Your task to perform on an android device: Search for usb-c to usb-b on newegg.com, select the first entry, add it to the cart, then select checkout. Image 0: 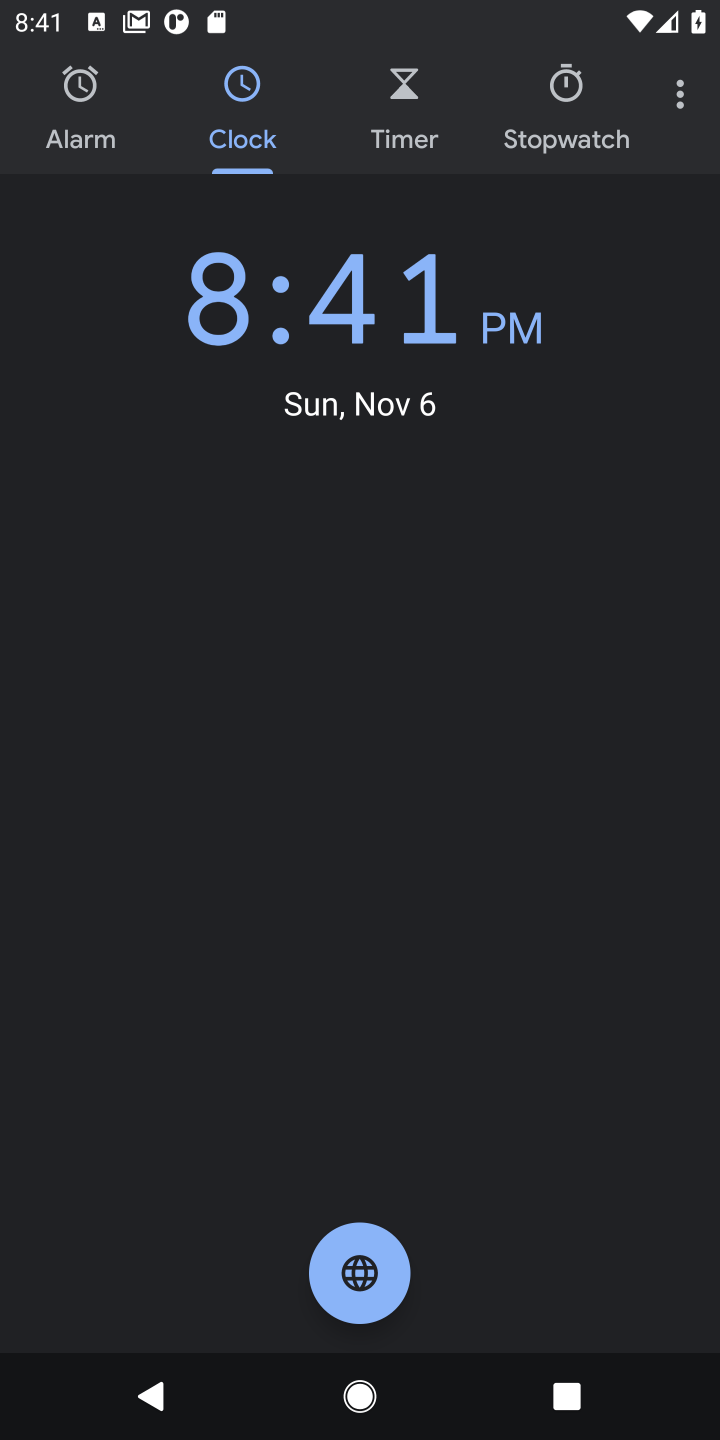
Step 0: press home button
Your task to perform on an android device: Search for usb-c to usb-b on newegg.com, select the first entry, add it to the cart, then select checkout. Image 1: 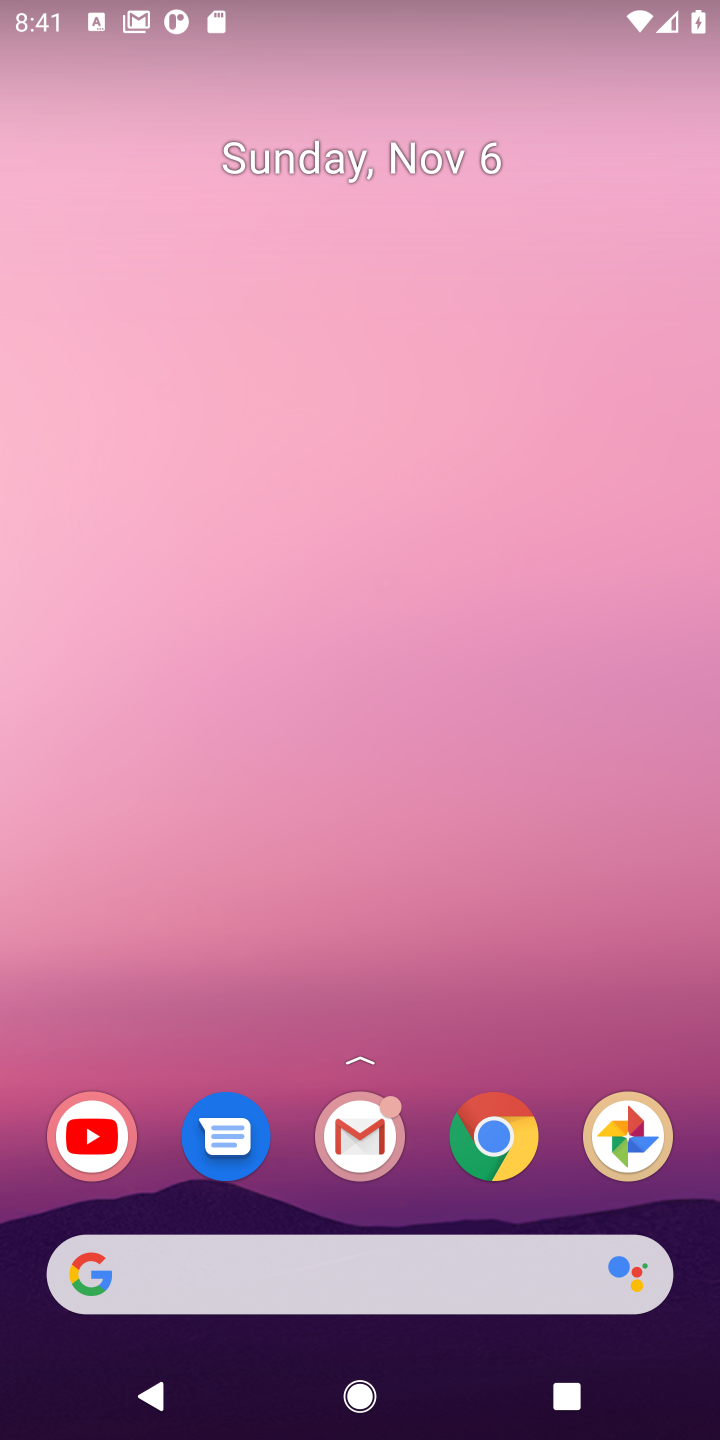
Step 1: click (178, 1274)
Your task to perform on an android device: Search for usb-c to usb-b on newegg.com, select the first entry, add it to the cart, then select checkout. Image 2: 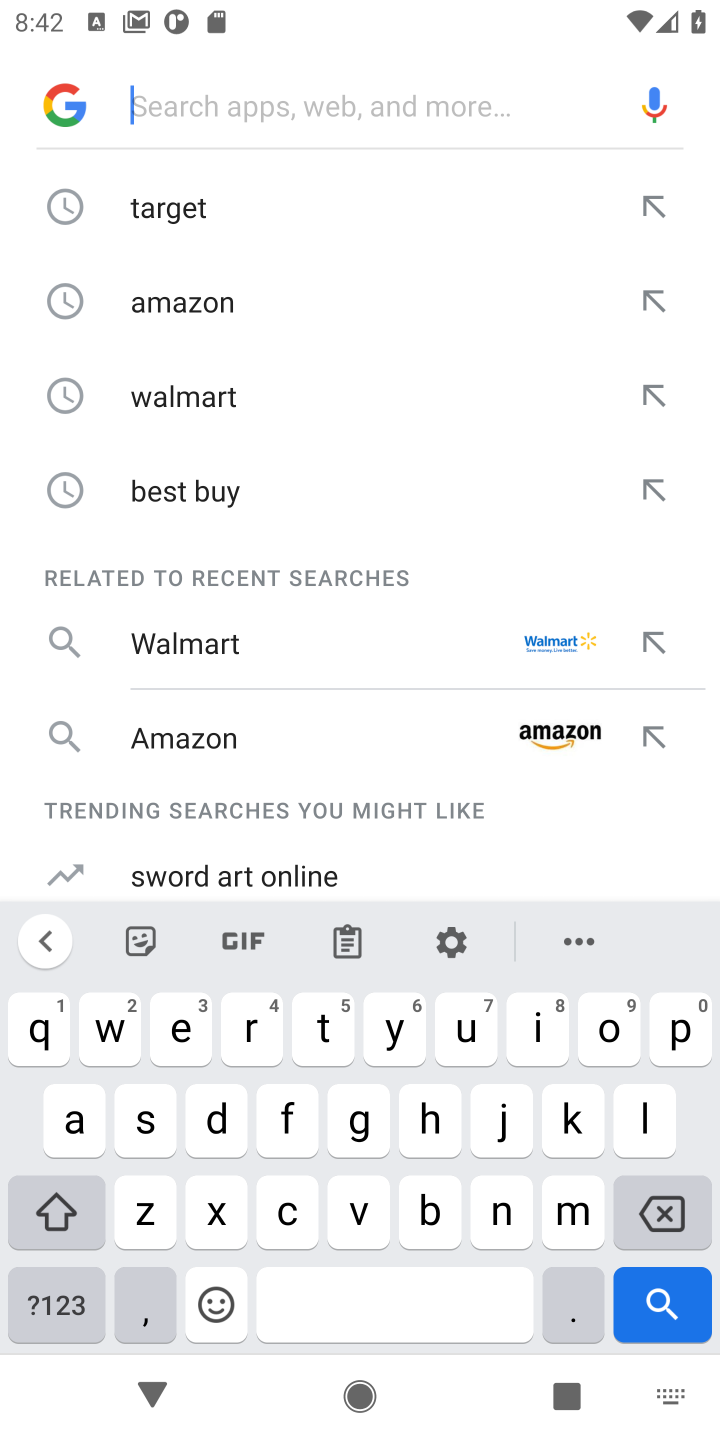
Step 2: type "neweeg"
Your task to perform on an android device: Search for usb-c to usb-b on newegg.com, select the first entry, add it to the cart, then select checkout. Image 3: 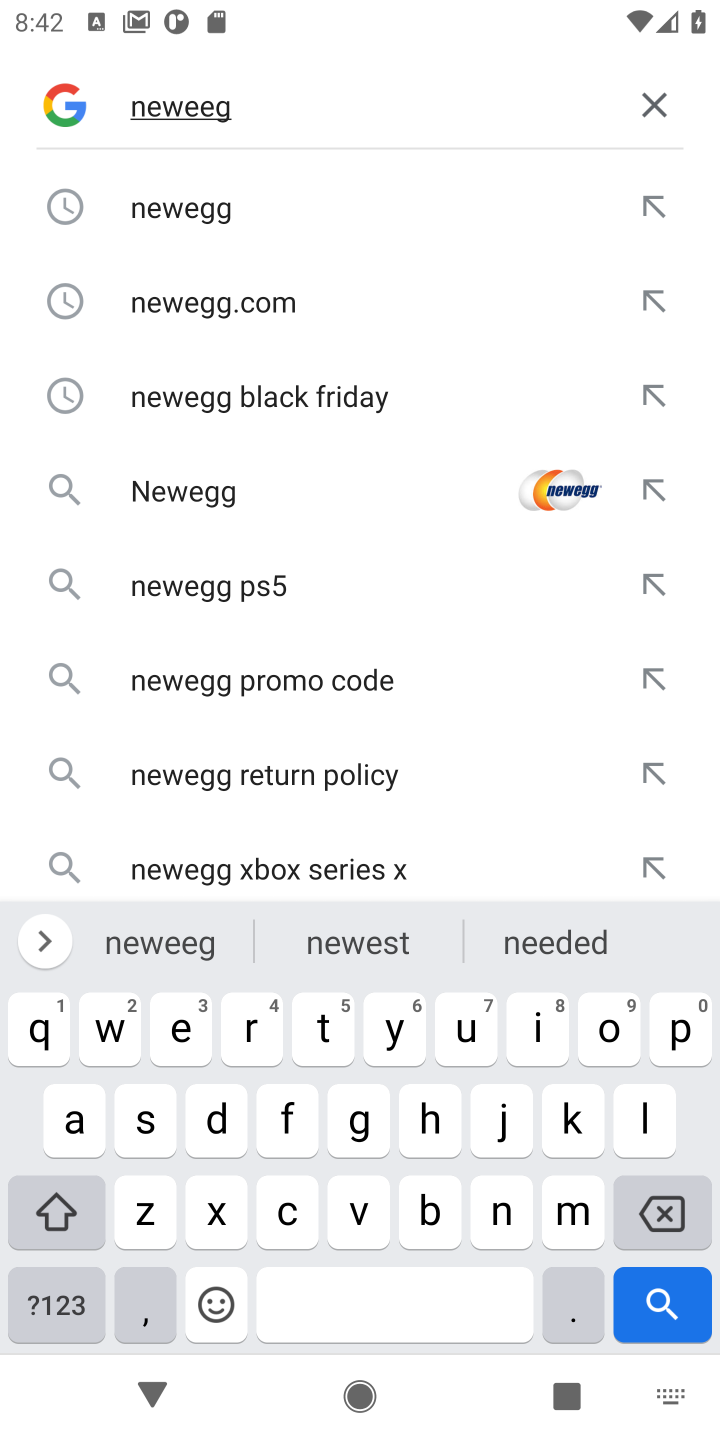
Step 3: click (228, 217)
Your task to perform on an android device: Search for usb-c to usb-b on newegg.com, select the first entry, add it to the cart, then select checkout. Image 4: 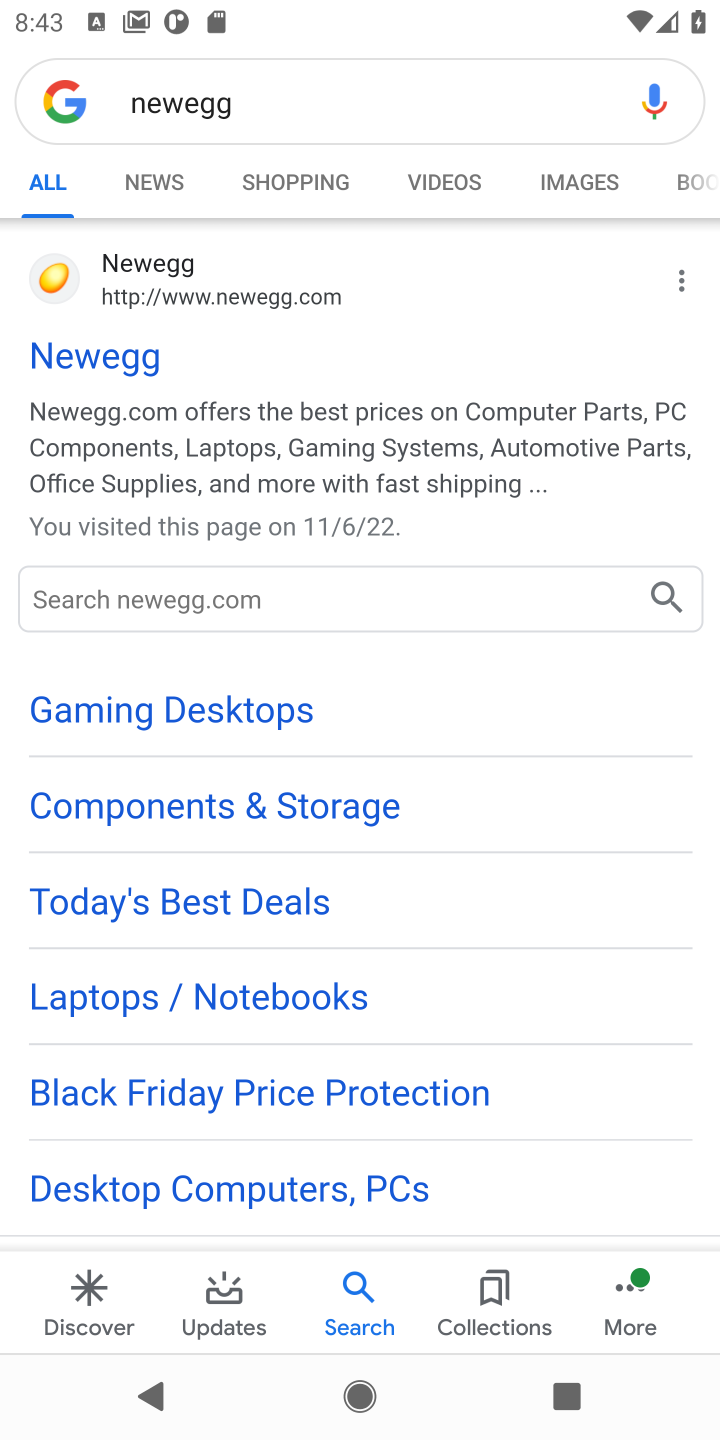
Step 4: click (153, 282)
Your task to perform on an android device: Search for usb-c to usb-b on newegg.com, select the first entry, add it to the cart, then select checkout. Image 5: 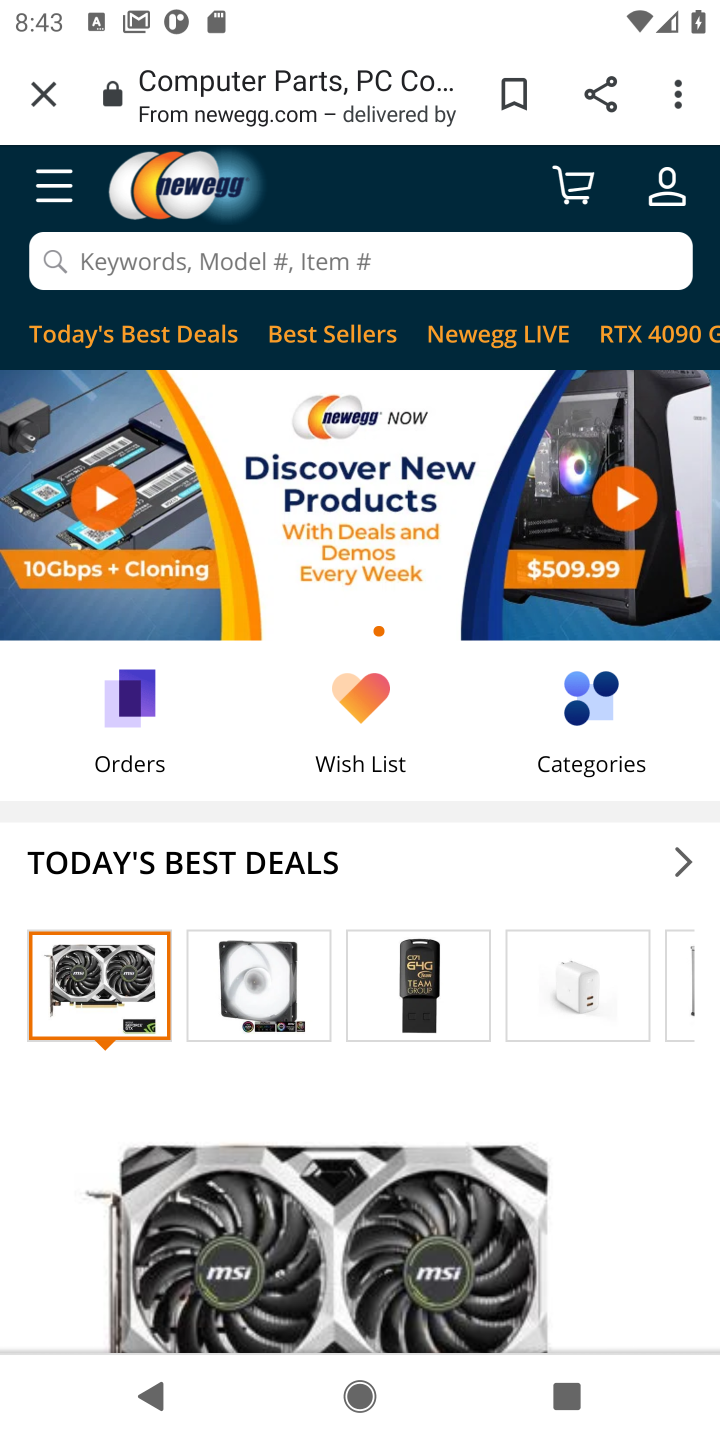
Step 5: task complete